Your task to perform on an android device: turn off sleep mode Image 0: 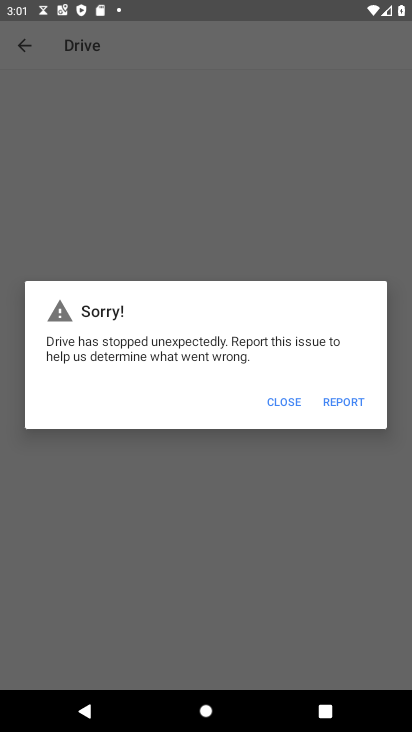
Step 0: press home button
Your task to perform on an android device: turn off sleep mode Image 1: 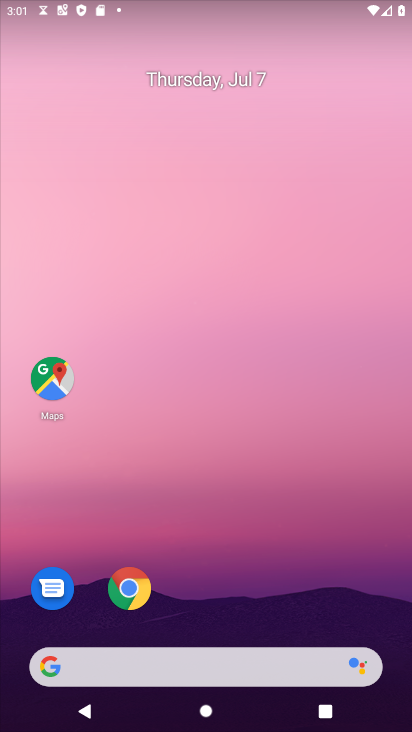
Step 1: drag from (238, 624) to (256, 147)
Your task to perform on an android device: turn off sleep mode Image 2: 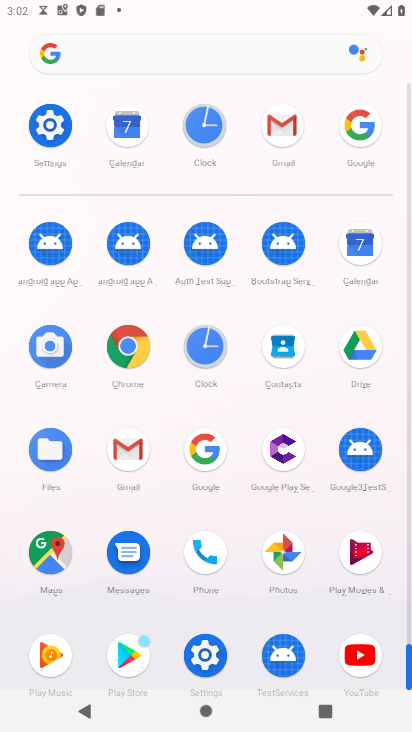
Step 2: click (48, 126)
Your task to perform on an android device: turn off sleep mode Image 3: 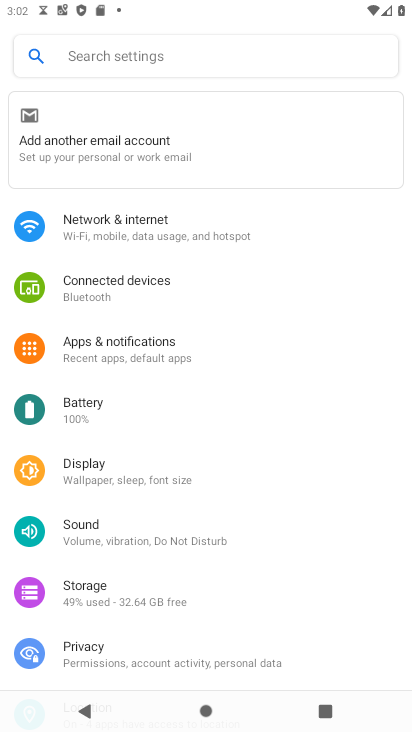
Step 3: click (88, 466)
Your task to perform on an android device: turn off sleep mode Image 4: 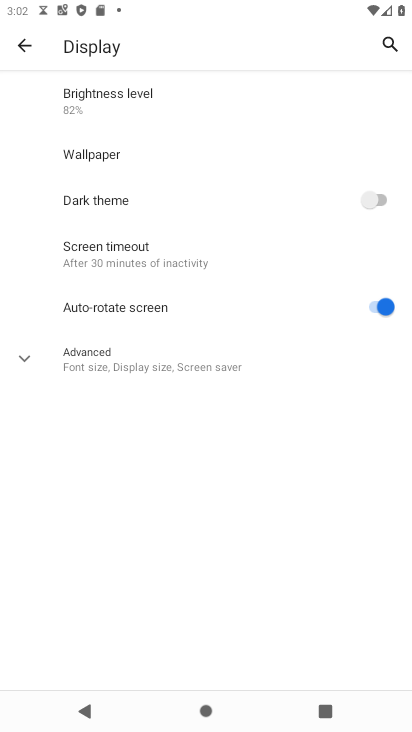
Step 4: click (163, 369)
Your task to perform on an android device: turn off sleep mode Image 5: 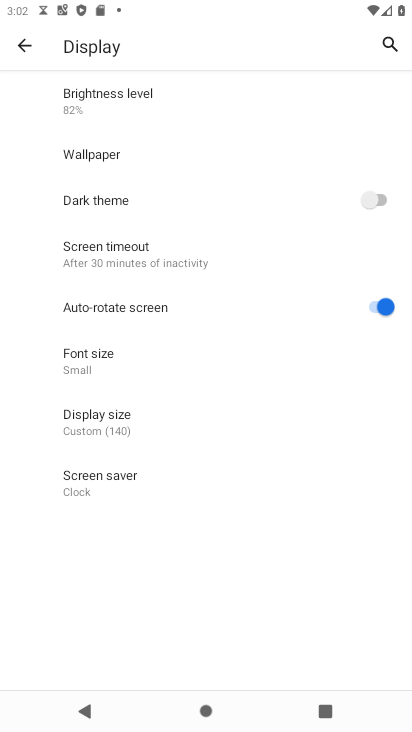
Step 5: task complete